Your task to perform on an android device: Add razer blade to the cart on target Image 0: 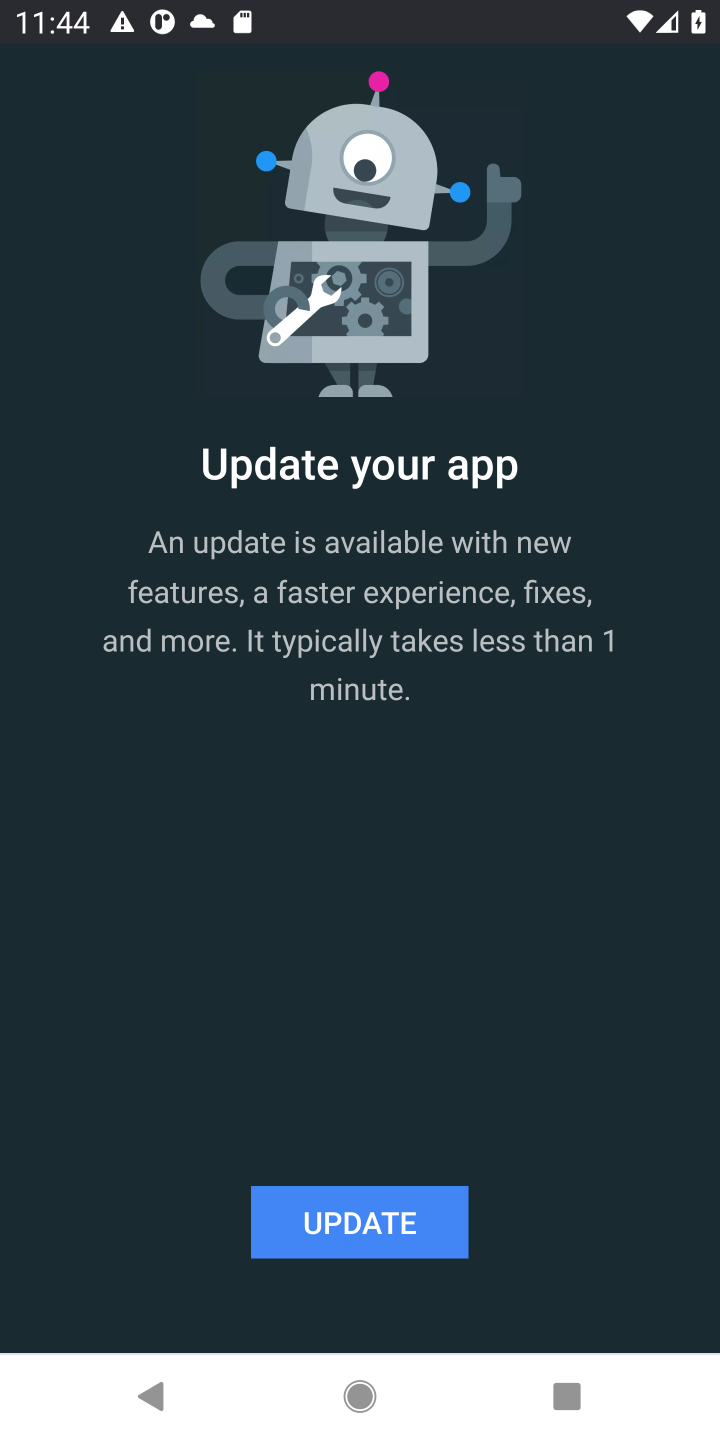
Step 0: press home button
Your task to perform on an android device: Add razer blade to the cart on target Image 1: 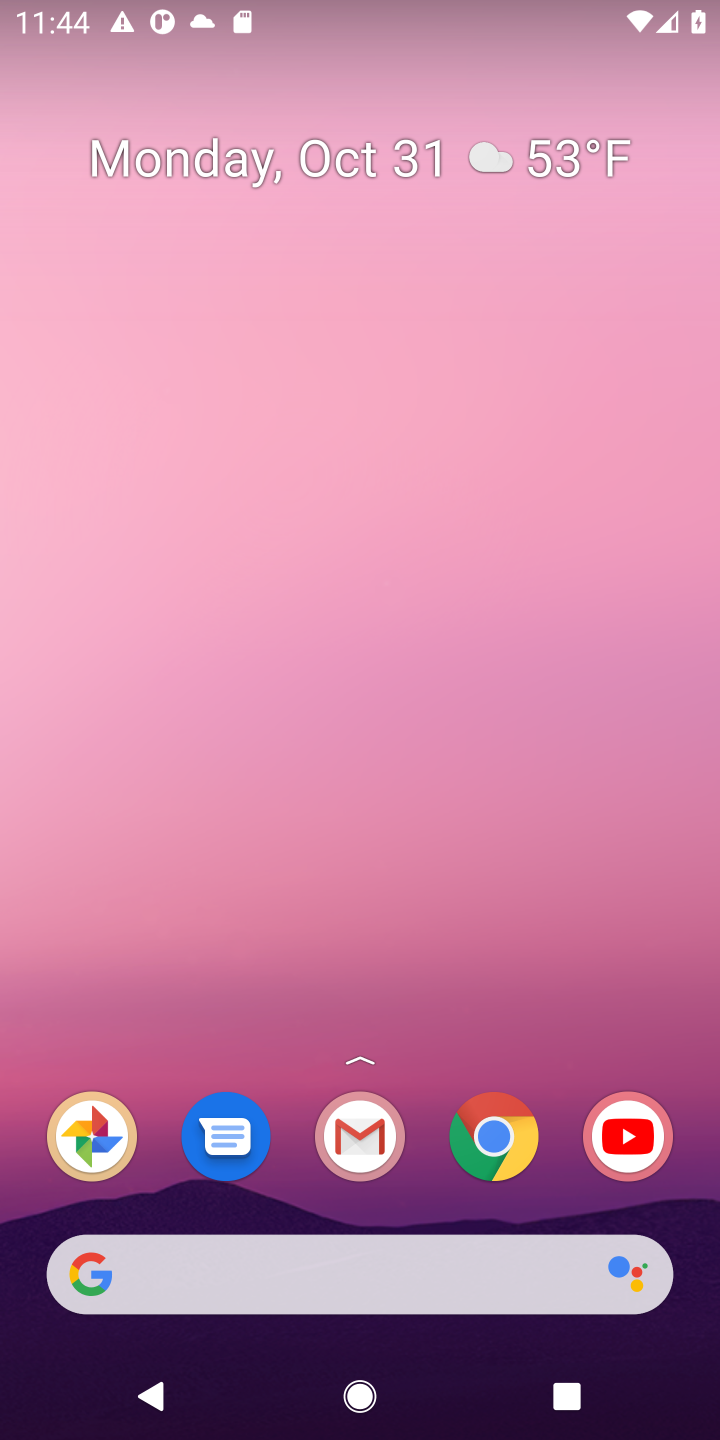
Step 1: click (179, 1261)
Your task to perform on an android device: Add razer blade to the cart on target Image 2: 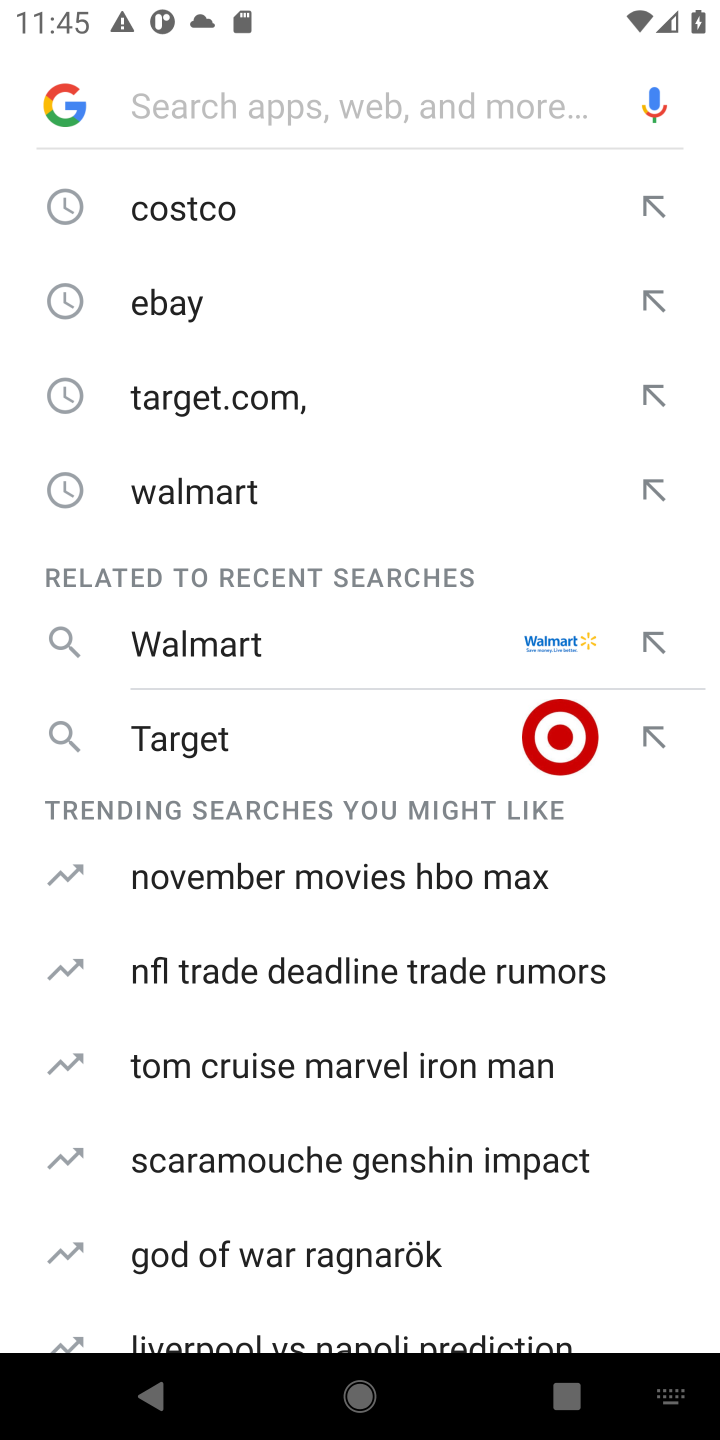
Step 2: press enter
Your task to perform on an android device: Add razer blade to the cart on target Image 3: 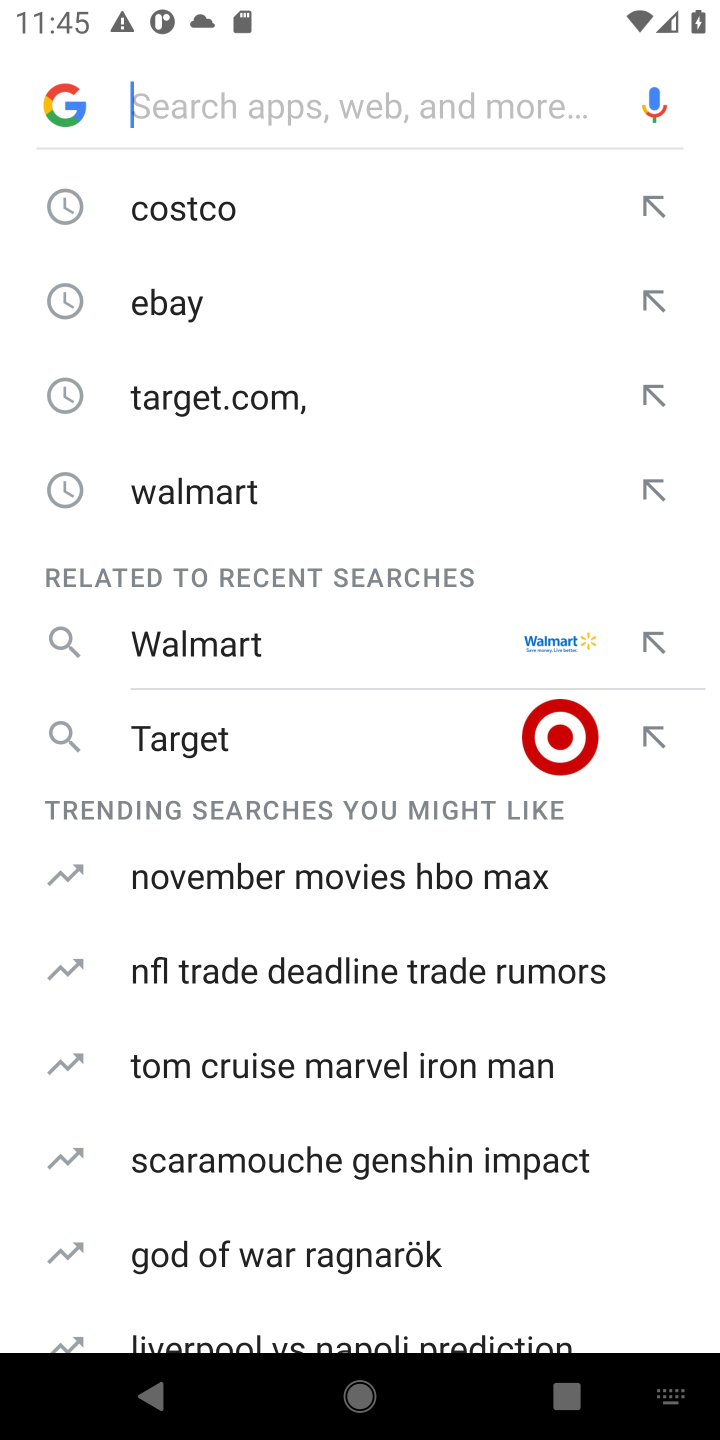
Step 3: type "target"
Your task to perform on an android device: Add razer blade to the cart on target Image 4: 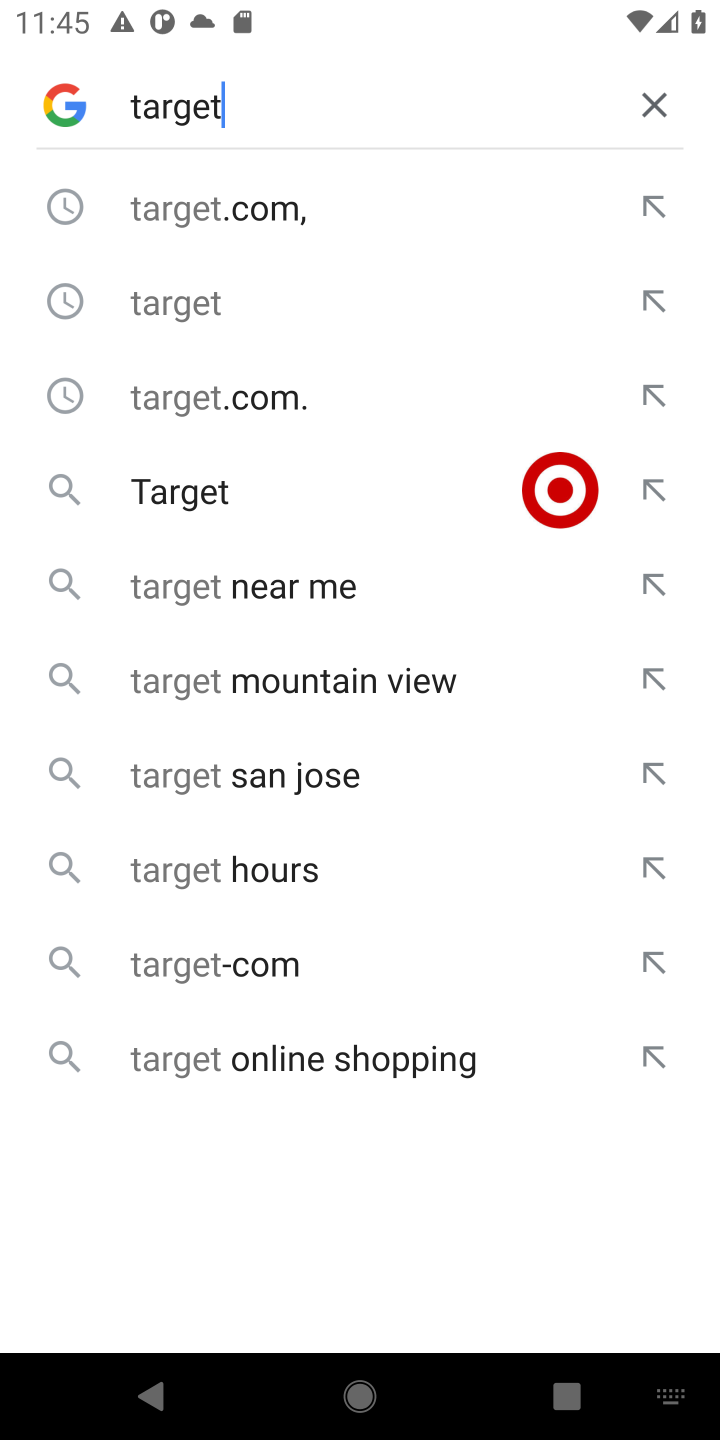
Step 4: press enter
Your task to perform on an android device: Add razer blade to the cart on target Image 5: 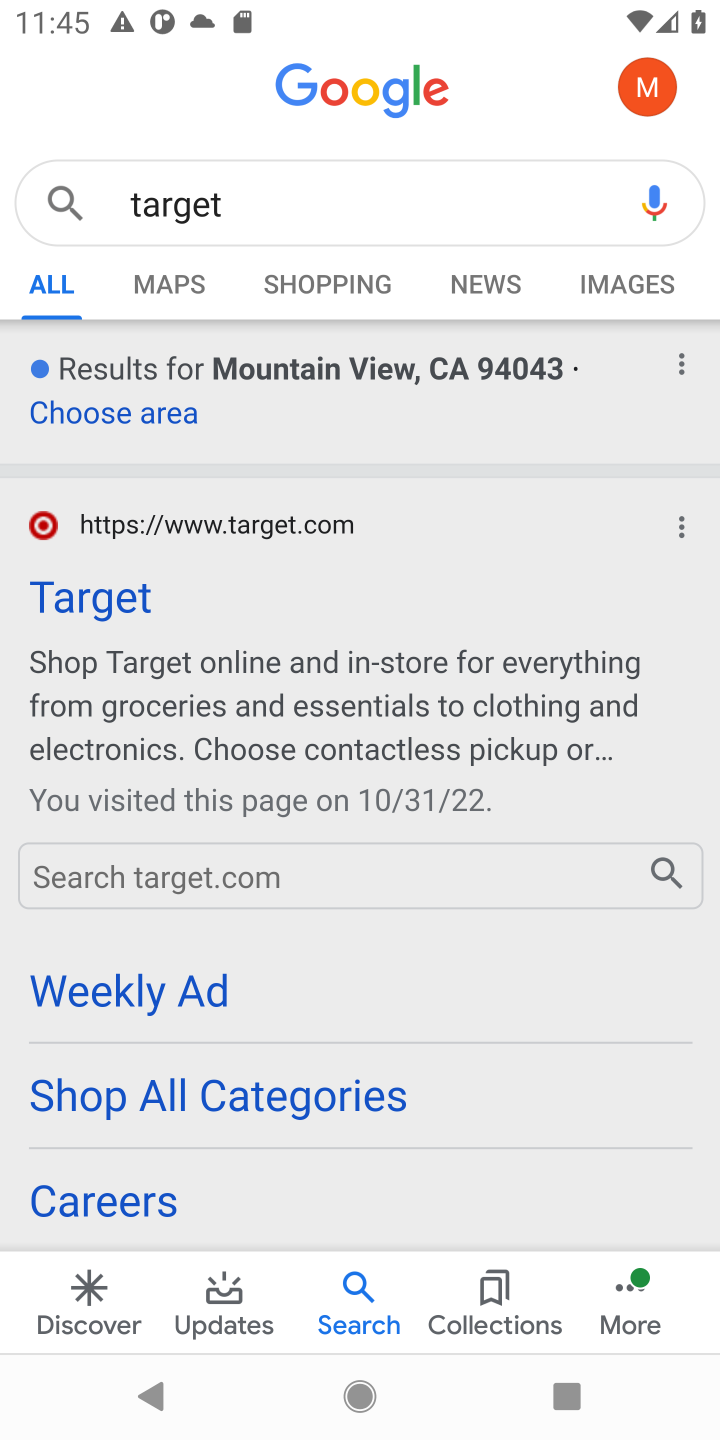
Step 5: click (76, 594)
Your task to perform on an android device: Add razer blade to the cart on target Image 6: 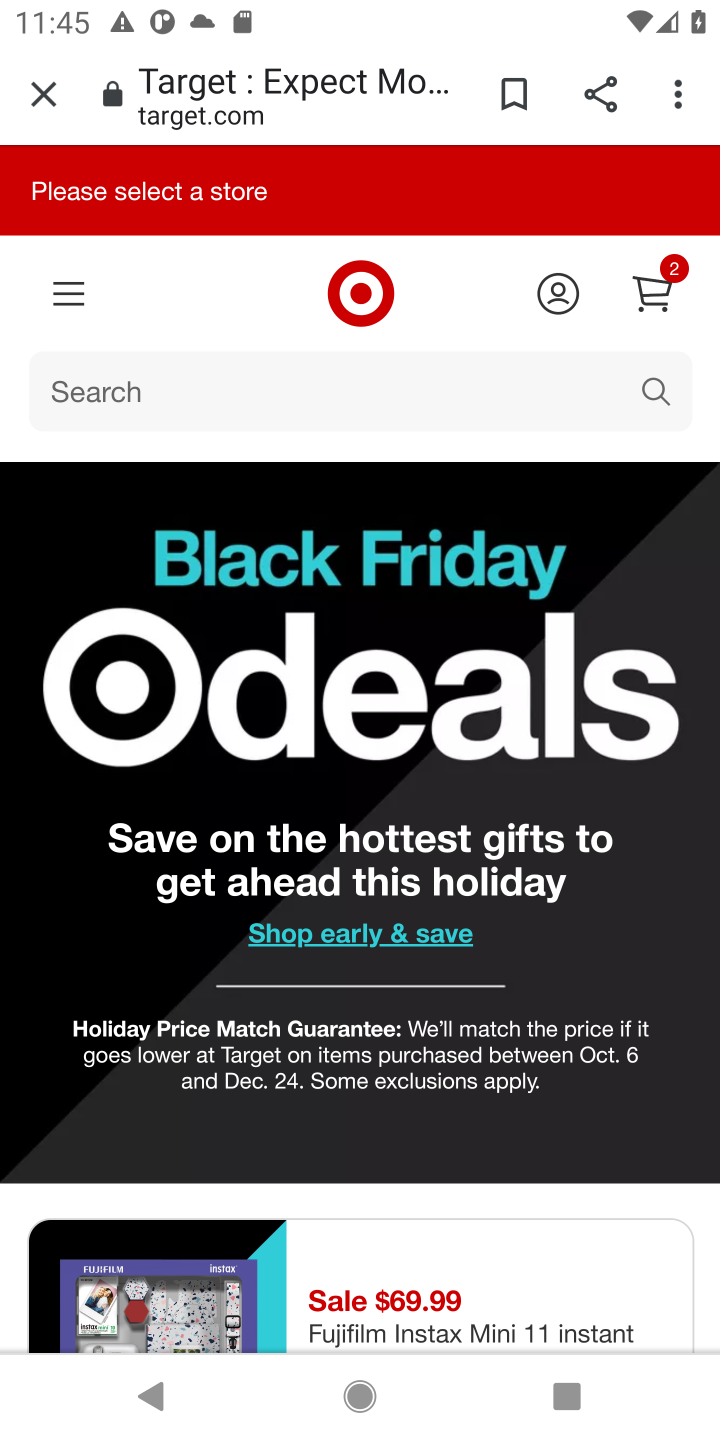
Step 6: click (100, 405)
Your task to perform on an android device: Add razer blade to the cart on target Image 7: 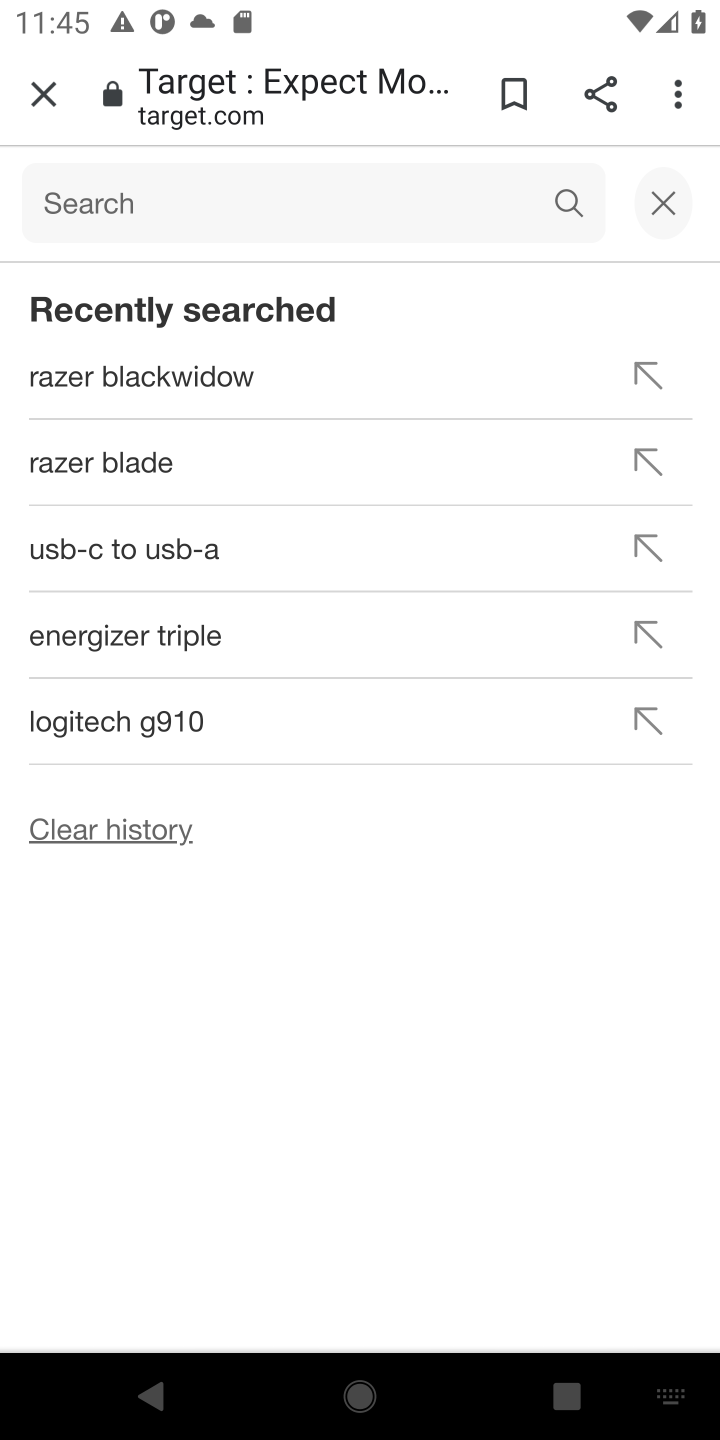
Step 7: type "razer blade"
Your task to perform on an android device: Add razer blade to the cart on target Image 8: 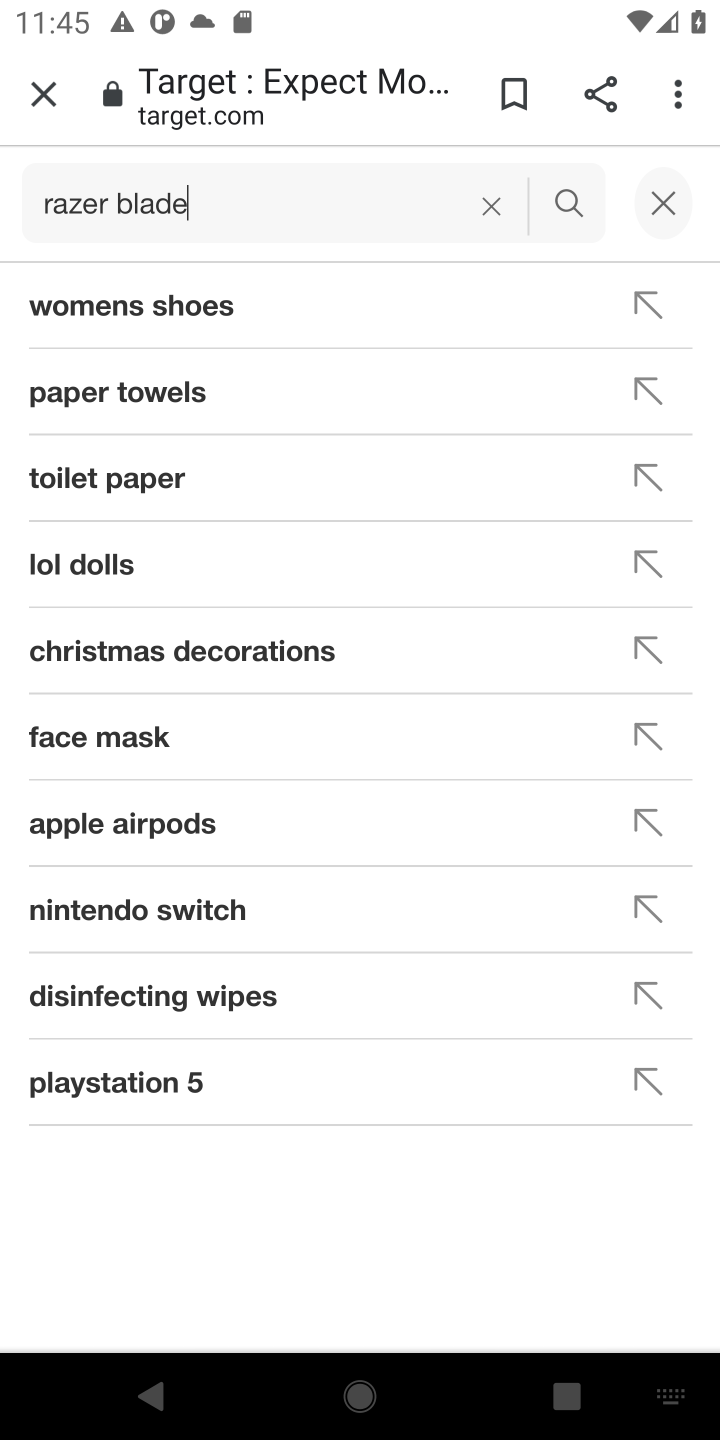
Step 8: press enter
Your task to perform on an android device: Add razer blade to the cart on target Image 9: 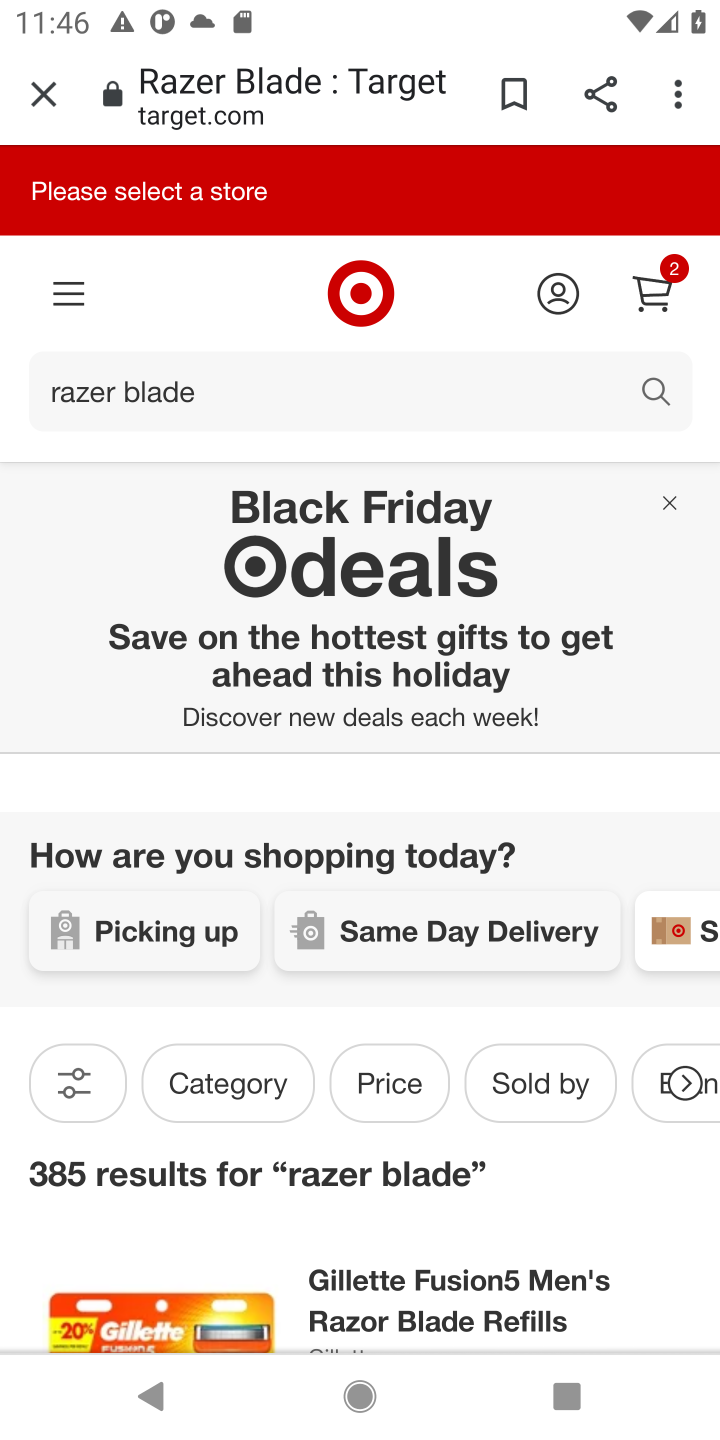
Step 9: drag from (480, 1181) to (481, 686)
Your task to perform on an android device: Add razer blade to the cart on target Image 10: 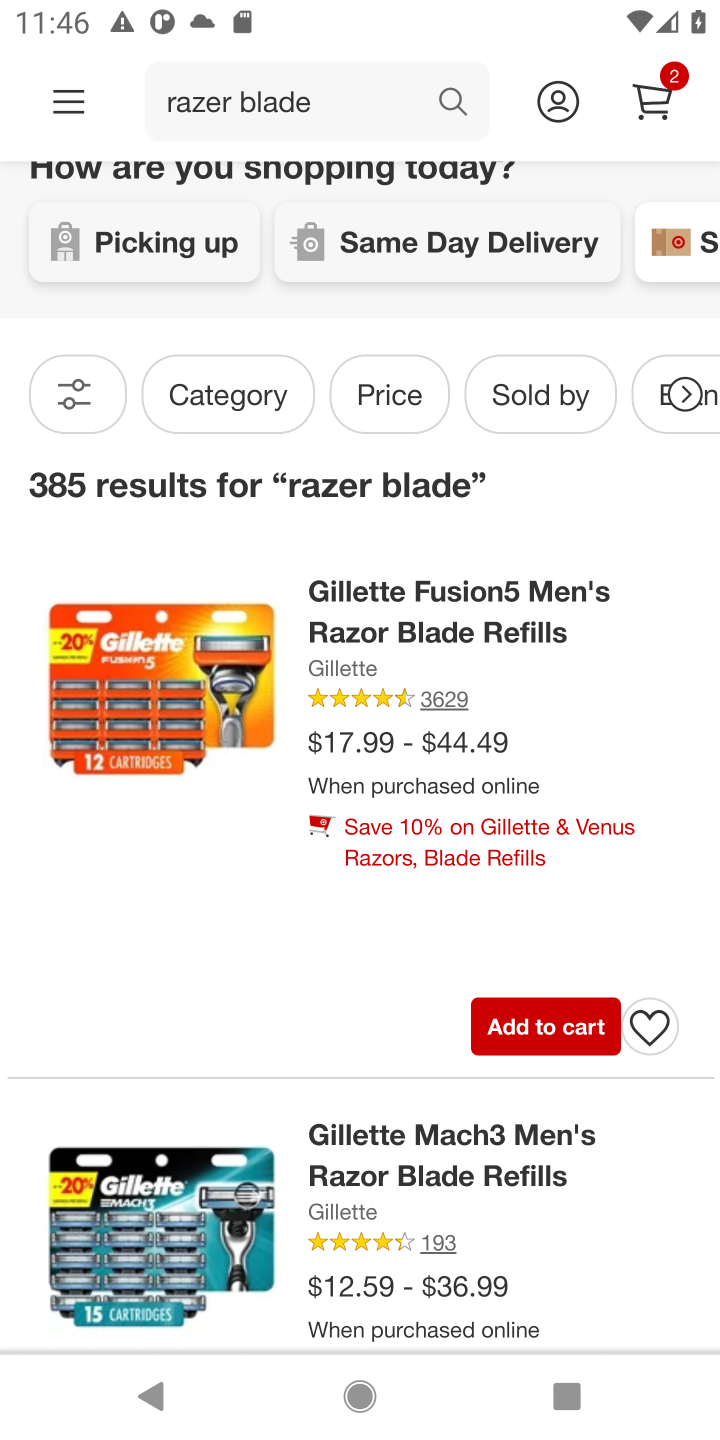
Step 10: click (521, 1037)
Your task to perform on an android device: Add razer blade to the cart on target Image 11: 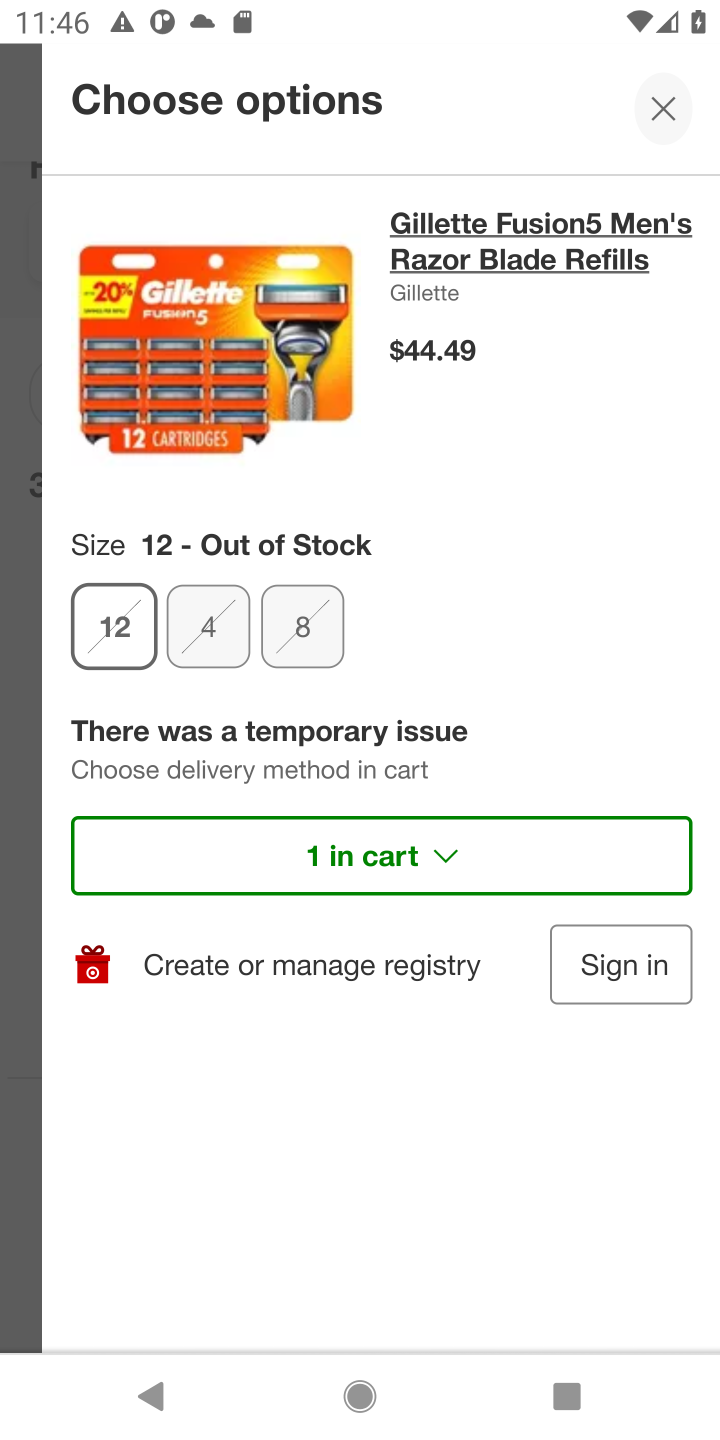
Step 11: task complete